Your task to perform on an android device: Toggle the flashlight Image 0: 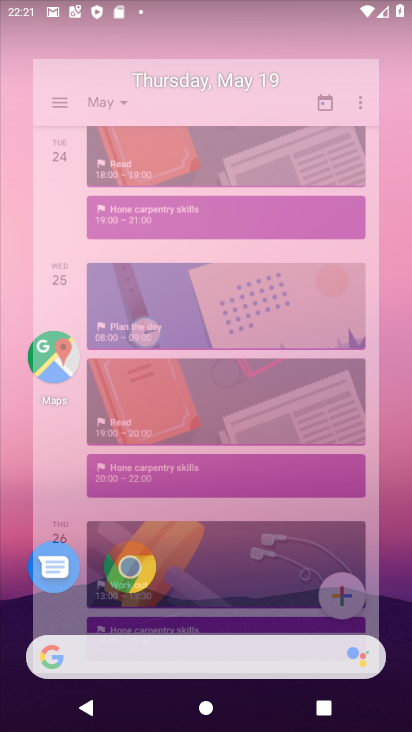
Step 0: press home button
Your task to perform on an android device: Toggle the flashlight Image 1: 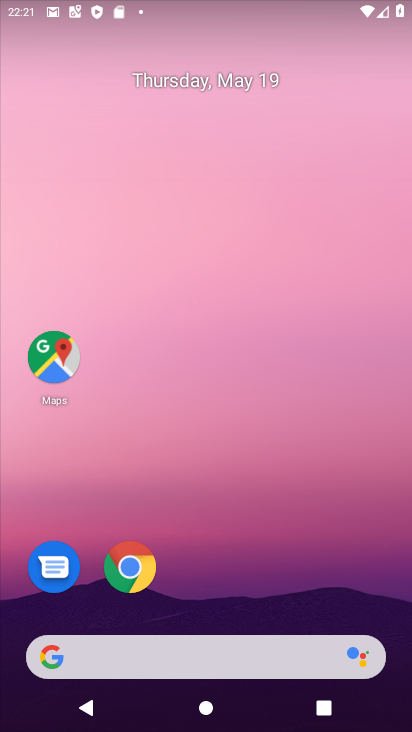
Step 1: drag from (198, 598) to (264, 211)
Your task to perform on an android device: Toggle the flashlight Image 2: 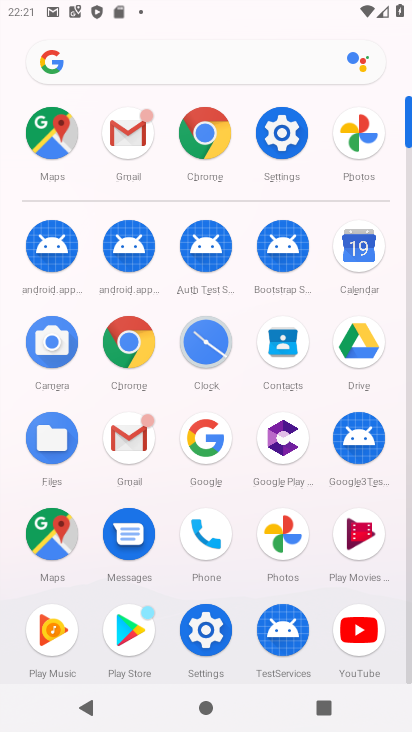
Step 2: click (281, 127)
Your task to perform on an android device: Toggle the flashlight Image 3: 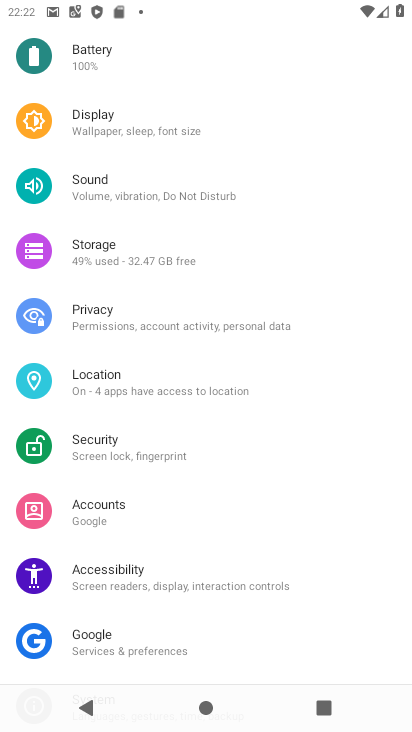
Step 3: drag from (172, 135) to (216, 578)
Your task to perform on an android device: Toggle the flashlight Image 4: 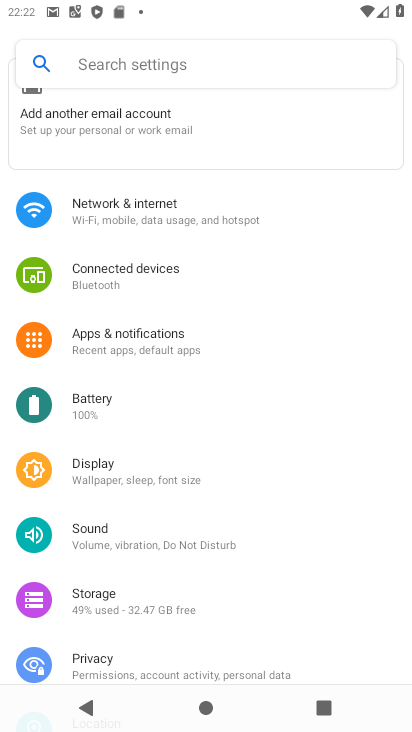
Step 4: click (149, 59)
Your task to perform on an android device: Toggle the flashlight Image 5: 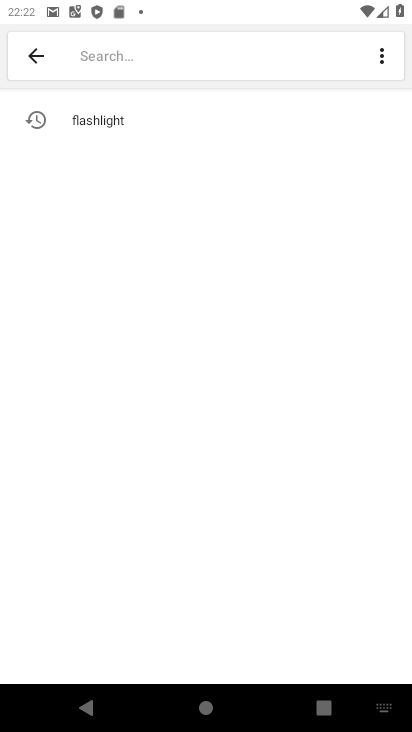
Step 5: type "flashlight"
Your task to perform on an android device: Toggle the flashlight Image 6: 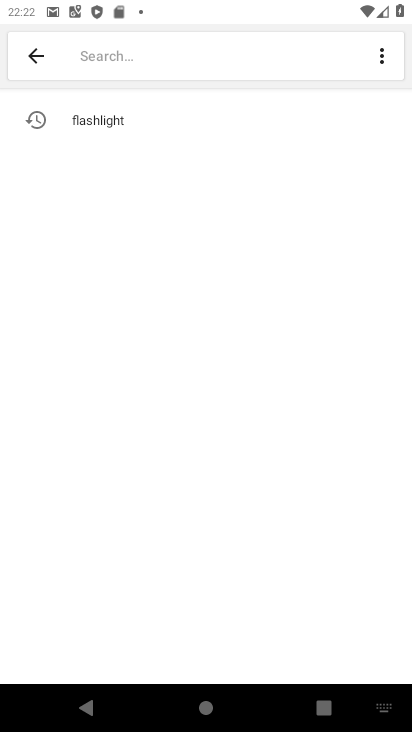
Step 6: click (114, 111)
Your task to perform on an android device: Toggle the flashlight Image 7: 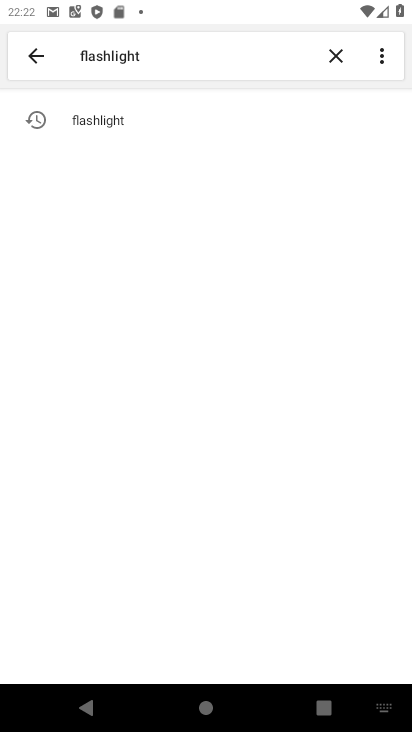
Step 7: click (135, 115)
Your task to perform on an android device: Toggle the flashlight Image 8: 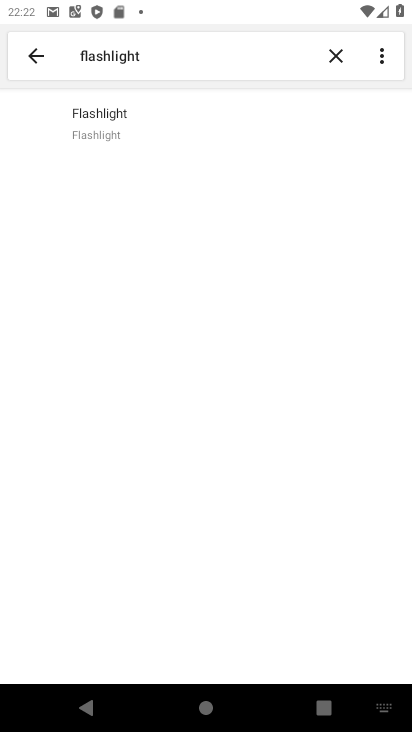
Step 8: task complete